Your task to perform on an android device: Is it going to rain today? Image 0: 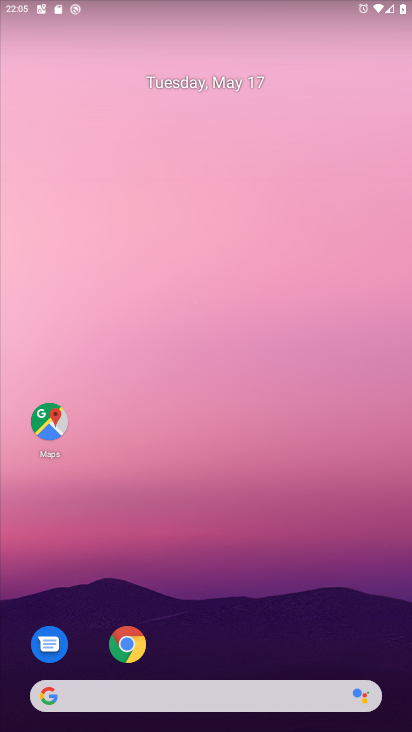
Step 0: drag from (24, 240) to (375, 240)
Your task to perform on an android device: Is it going to rain today? Image 1: 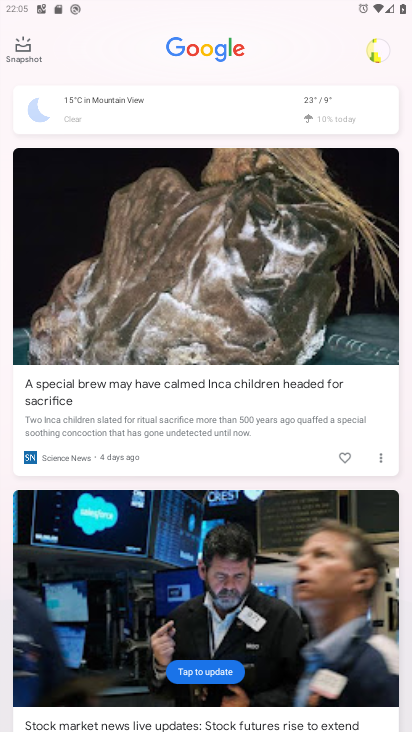
Step 1: click (308, 106)
Your task to perform on an android device: Is it going to rain today? Image 2: 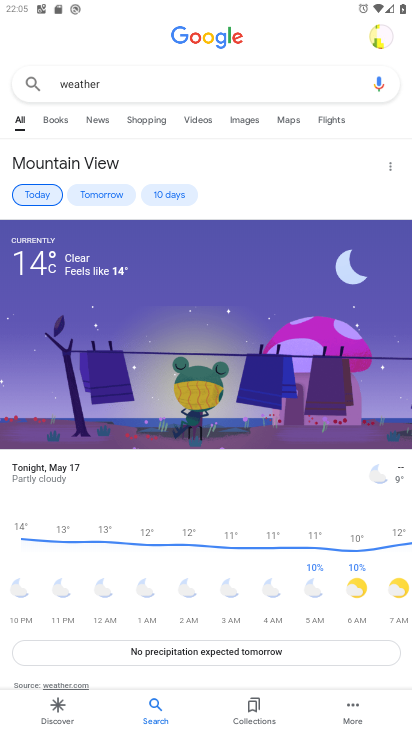
Step 2: task complete